Your task to perform on an android device: change text size in settings app Image 0: 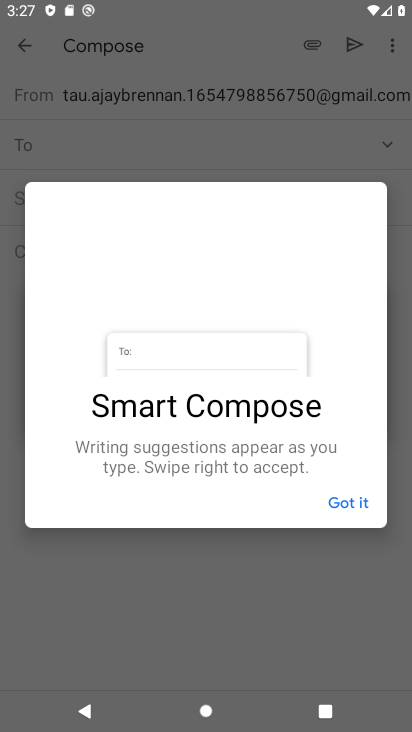
Step 0: press home button
Your task to perform on an android device: change text size in settings app Image 1: 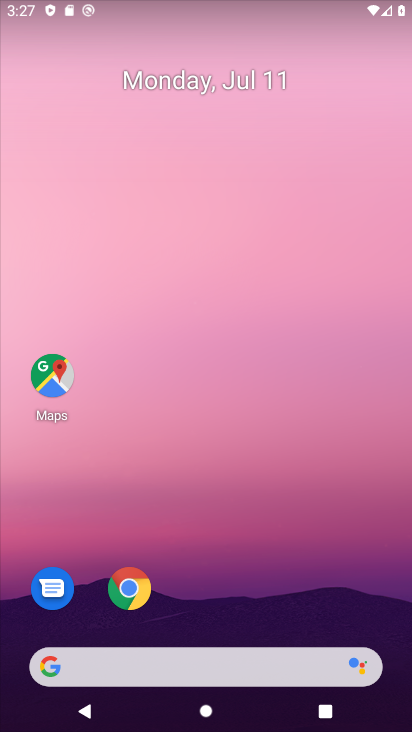
Step 1: drag from (358, 600) to (361, 156)
Your task to perform on an android device: change text size in settings app Image 2: 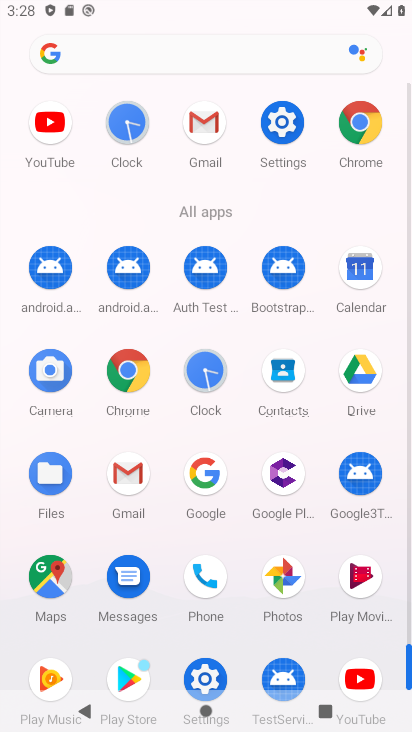
Step 2: click (274, 118)
Your task to perform on an android device: change text size in settings app Image 3: 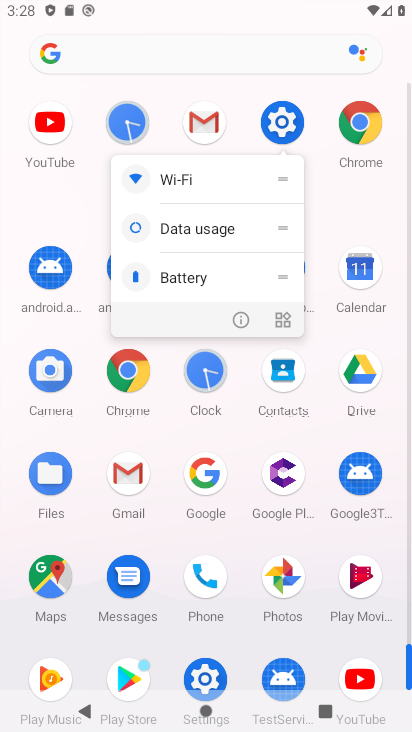
Step 3: click (274, 118)
Your task to perform on an android device: change text size in settings app Image 4: 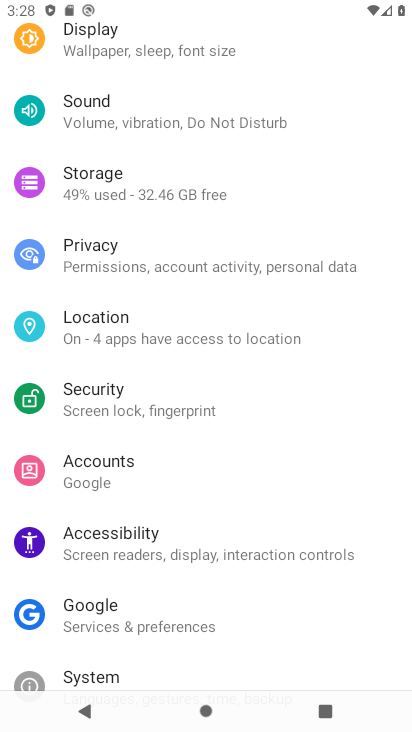
Step 4: drag from (365, 144) to (375, 303)
Your task to perform on an android device: change text size in settings app Image 5: 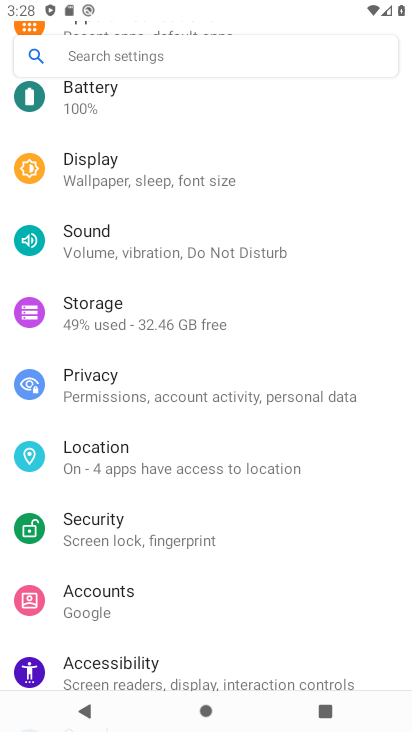
Step 5: drag from (352, 168) to (349, 314)
Your task to perform on an android device: change text size in settings app Image 6: 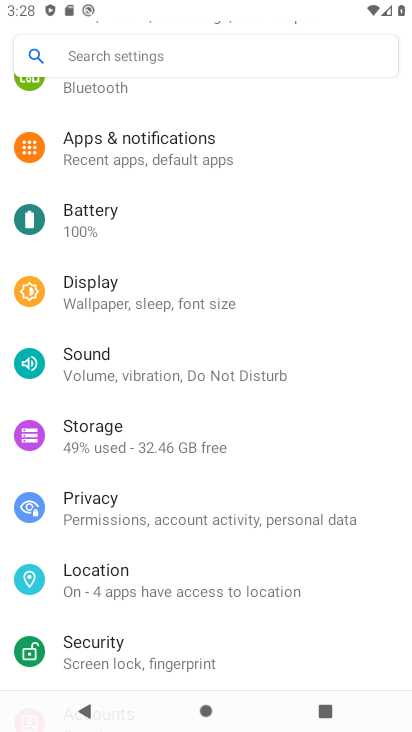
Step 6: drag from (329, 158) to (336, 347)
Your task to perform on an android device: change text size in settings app Image 7: 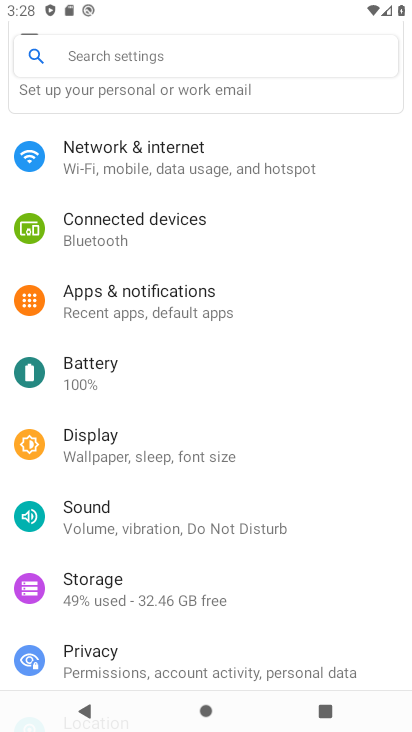
Step 7: drag from (358, 278) to (372, 450)
Your task to perform on an android device: change text size in settings app Image 8: 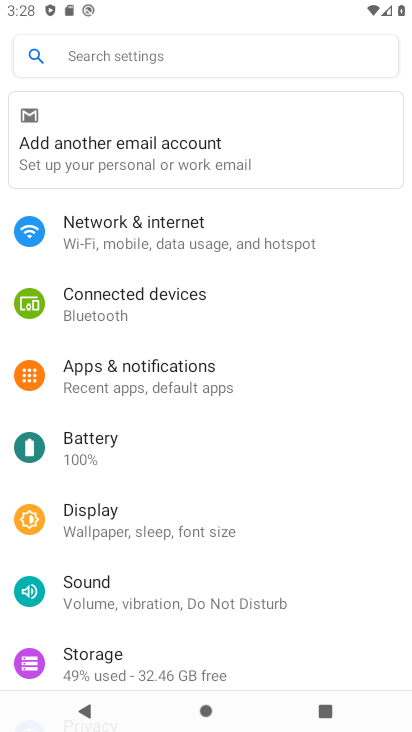
Step 8: drag from (356, 537) to (354, 374)
Your task to perform on an android device: change text size in settings app Image 9: 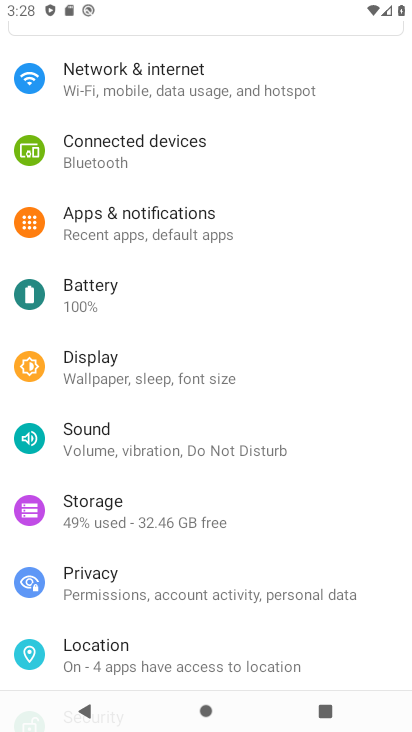
Step 9: drag from (367, 527) to (373, 385)
Your task to perform on an android device: change text size in settings app Image 10: 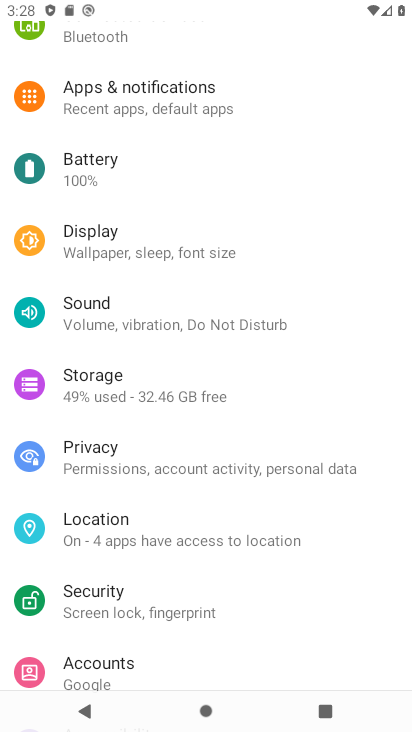
Step 10: click (207, 247)
Your task to perform on an android device: change text size in settings app Image 11: 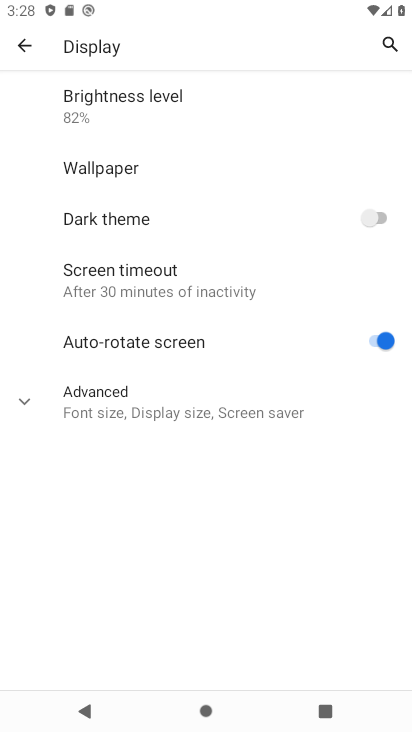
Step 11: click (207, 406)
Your task to perform on an android device: change text size in settings app Image 12: 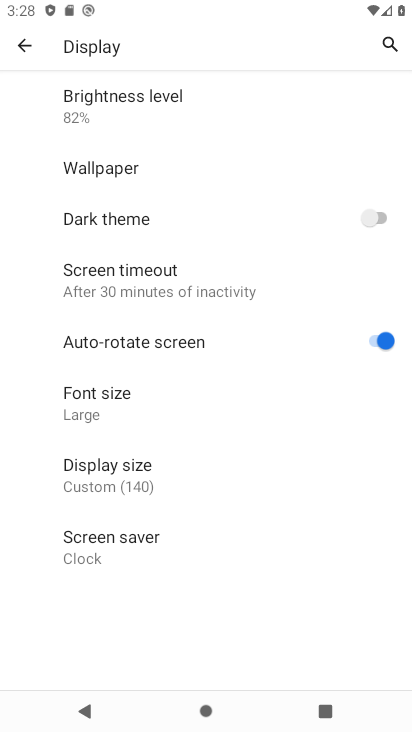
Step 12: click (126, 401)
Your task to perform on an android device: change text size in settings app Image 13: 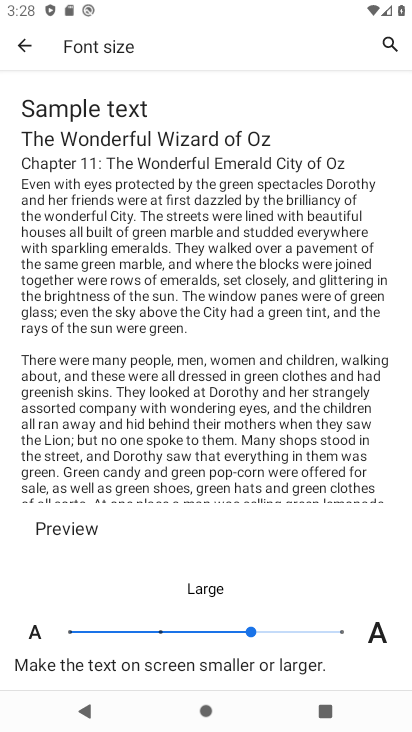
Step 13: click (161, 630)
Your task to perform on an android device: change text size in settings app Image 14: 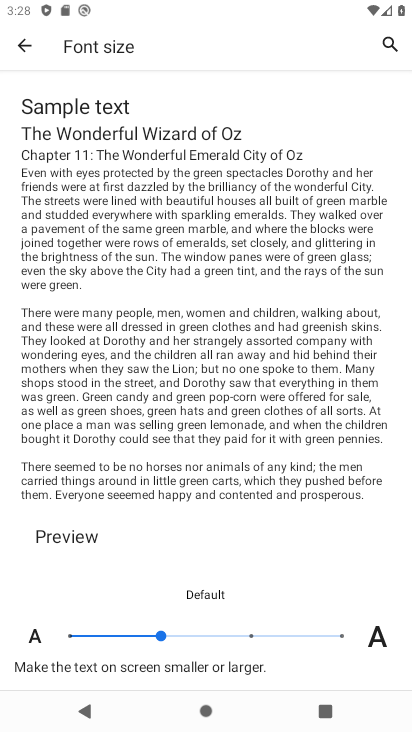
Step 14: task complete